Your task to perform on an android device: set an alarm Image 0: 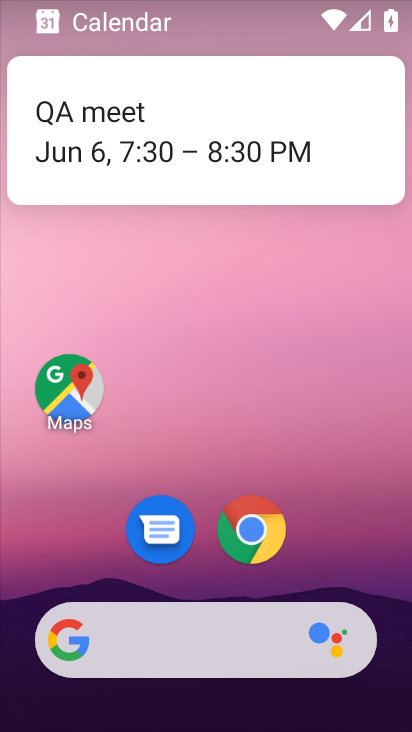
Step 0: drag from (332, 604) to (376, 74)
Your task to perform on an android device: set an alarm Image 1: 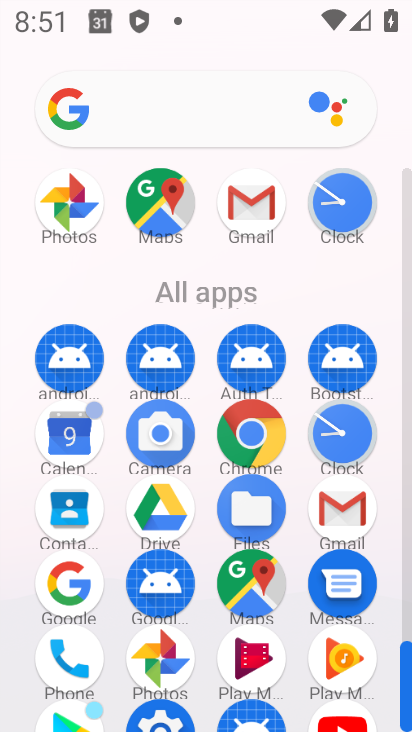
Step 1: click (326, 438)
Your task to perform on an android device: set an alarm Image 2: 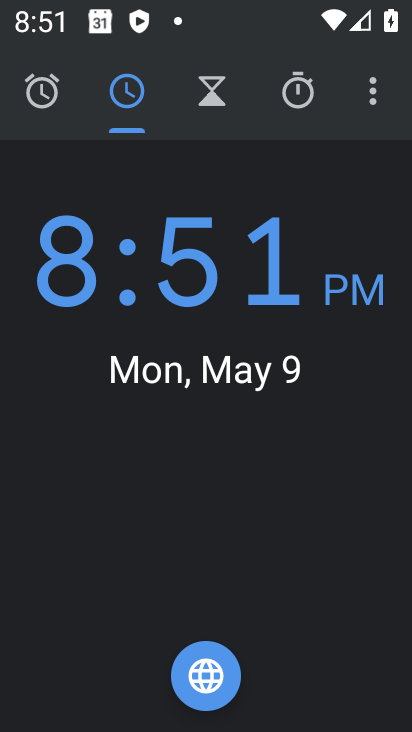
Step 2: click (37, 87)
Your task to perform on an android device: set an alarm Image 3: 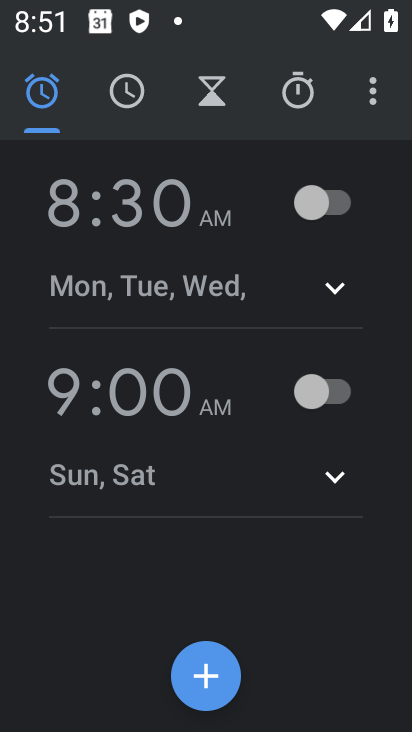
Step 3: click (334, 203)
Your task to perform on an android device: set an alarm Image 4: 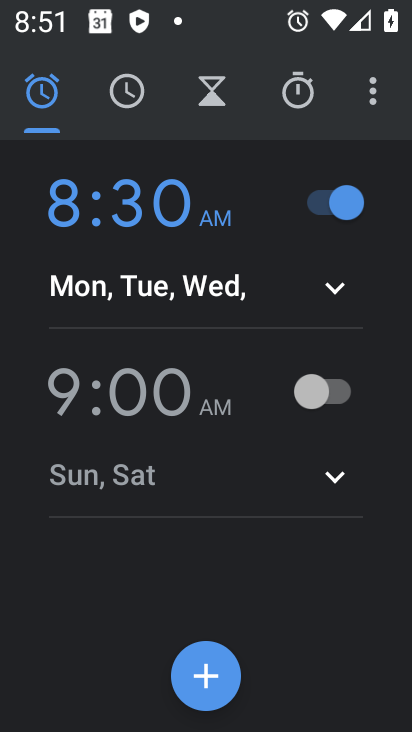
Step 4: task complete